Your task to perform on an android device: turn on priority inbox in the gmail app Image 0: 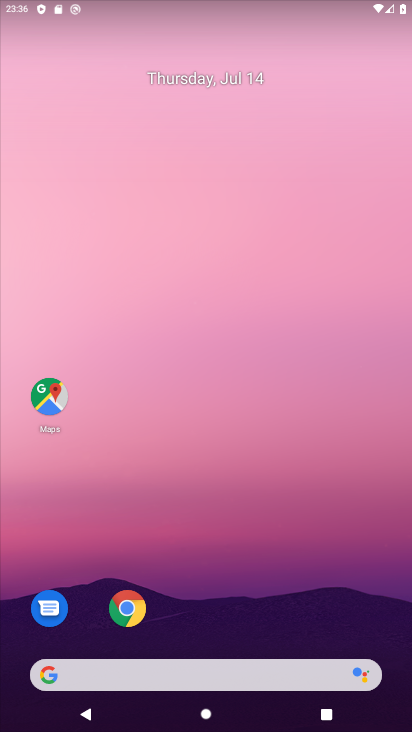
Step 0: drag from (19, 711) to (198, 240)
Your task to perform on an android device: turn on priority inbox in the gmail app Image 1: 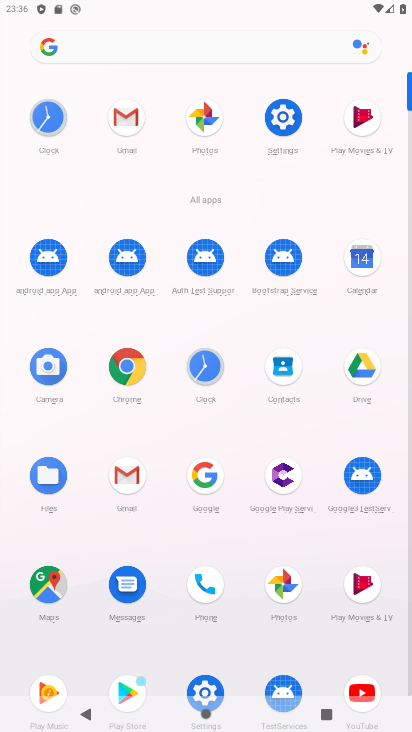
Step 1: click (130, 467)
Your task to perform on an android device: turn on priority inbox in the gmail app Image 2: 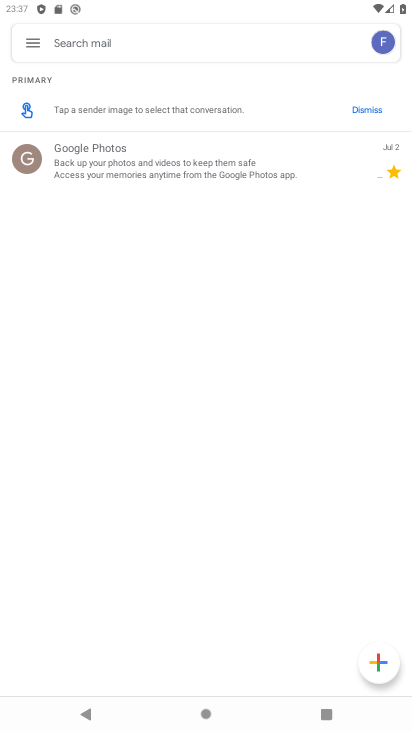
Step 2: click (33, 52)
Your task to perform on an android device: turn on priority inbox in the gmail app Image 3: 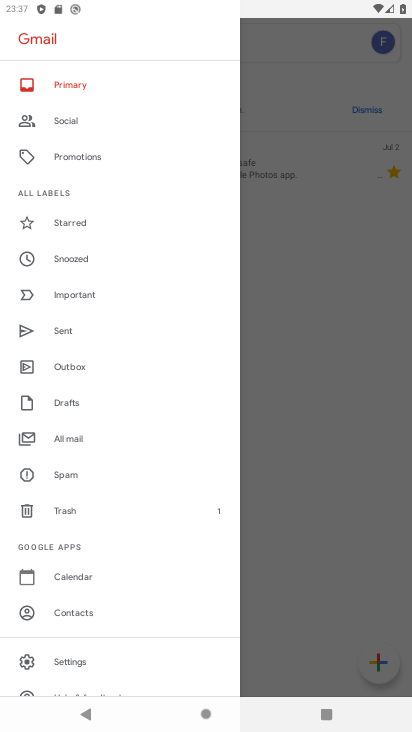
Step 3: click (74, 653)
Your task to perform on an android device: turn on priority inbox in the gmail app Image 4: 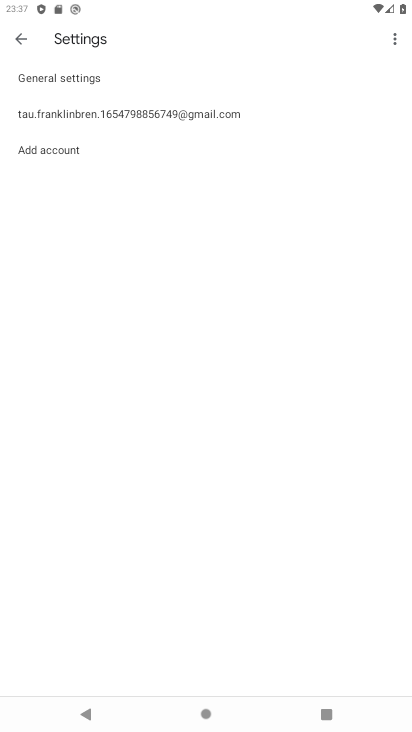
Step 4: click (81, 105)
Your task to perform on an android device: turn on priority inbox in the gmail app Image 5: 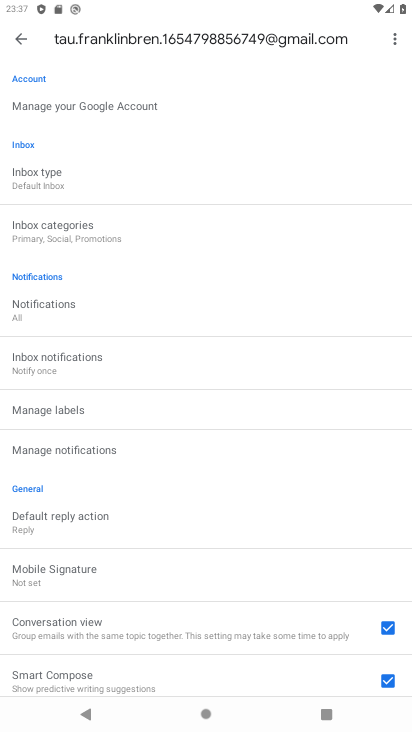
Step 5: click (44, 190)
Your task to perform on an android device: turn on priority inbox in the gmail app Image 6: 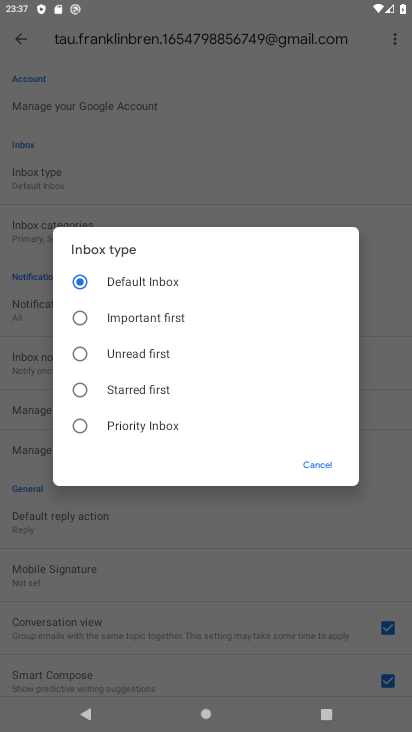
Step 6: click (83, 419)
Your task to perform on an android device: turn on priority inbox in the gmail app Image 7: 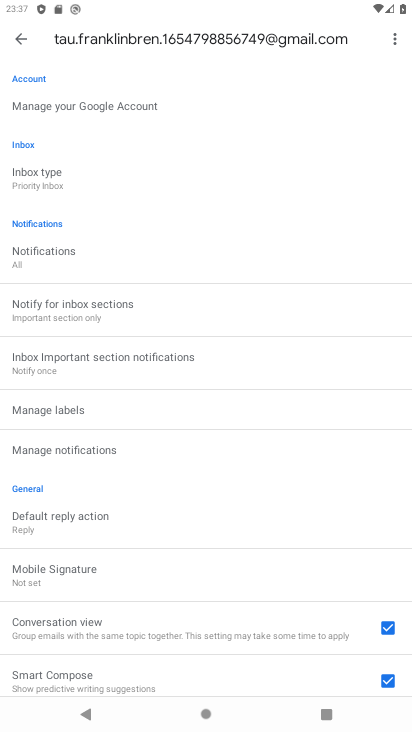
Step 7: task complete